Your task to perform on an android device: open sync settings in chrome Image 0: 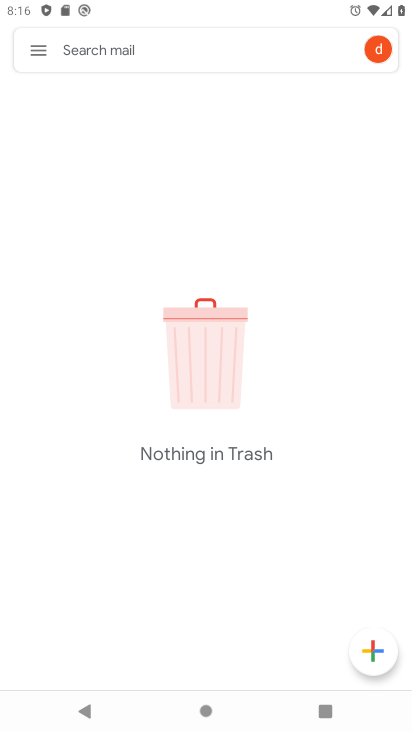
Step 0: press home button
Your task to perform on an android device: open sync settings in chrome Image 1: 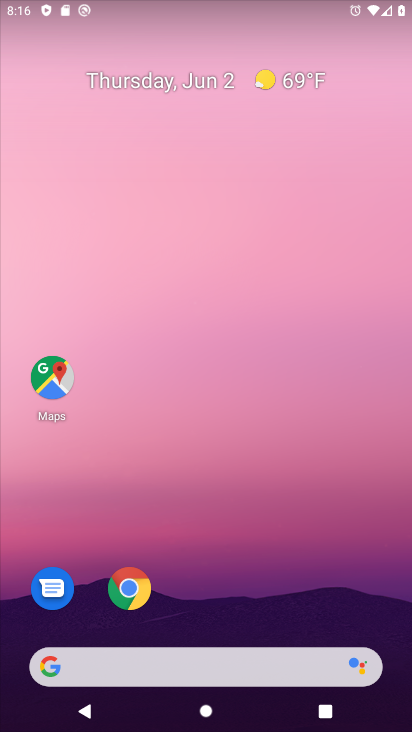
Step 1: click (130, 582)
Your task to perform on an android device: open sync settings in chrome Image 2: 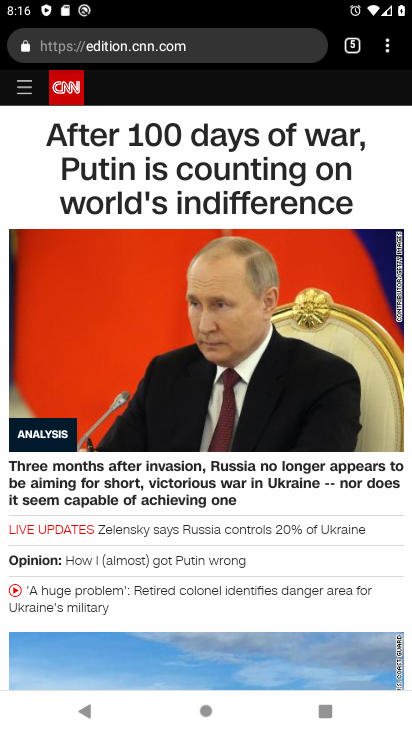
Step 2: click (388, 51)
Your task to perform on an android device: open sync settings in chrome Image 3: 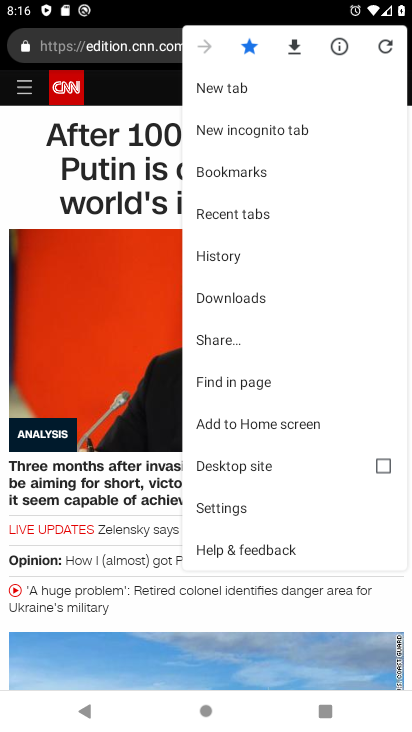
Step 3: click (229, 503)
Your task to perform on an android device: open sync settings in chrome Image 4: 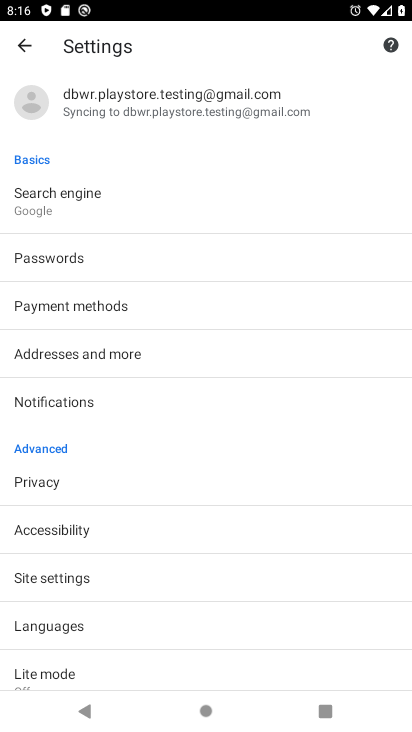
Step 4: click (55, 570)
Your task to perform on an android device: open sync settings in chrome Image 5: 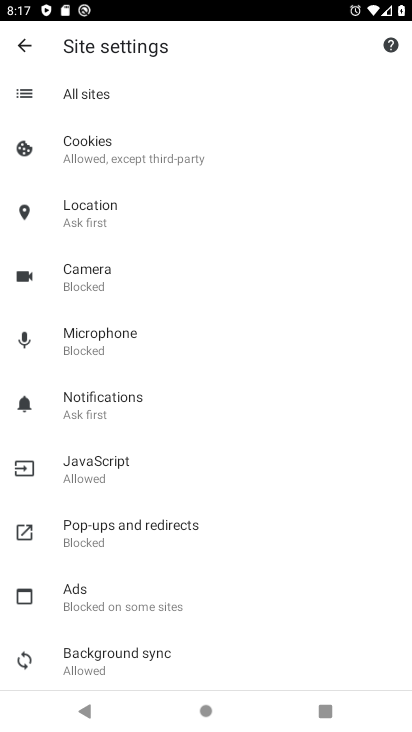
Step 5: click (91, 654)
Your task to perform on an android device: open sync settings in chrome Image 6: 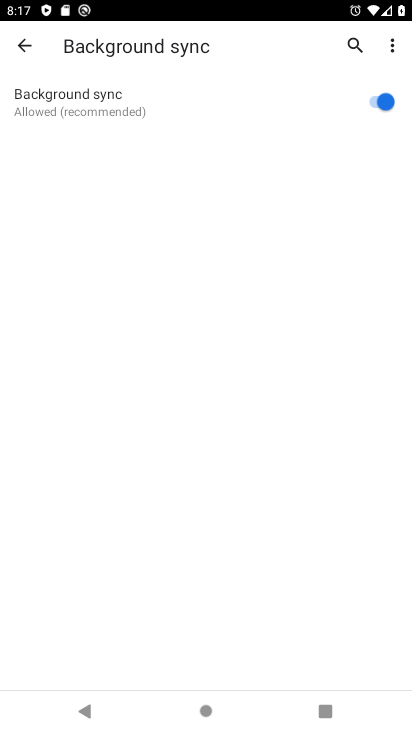
Step 6: task complete